Your task to perform on an android device: Open battery settings Image 0: 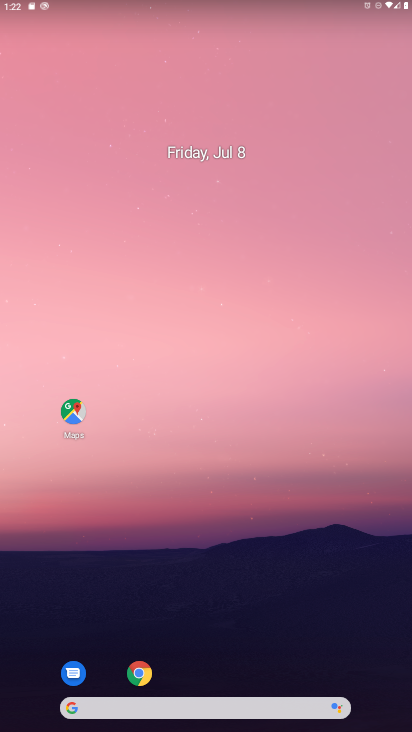
Step 0: drag from (397, 721) to (345, 144)
Your task to perform on an android device: Open battery settings Image 1: 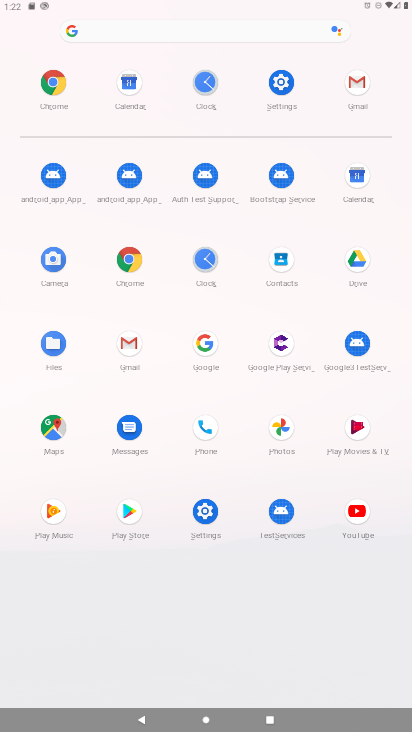
Step 1: click (287, 82)
Your task to perform on an android device: Open battery settings Image 2: 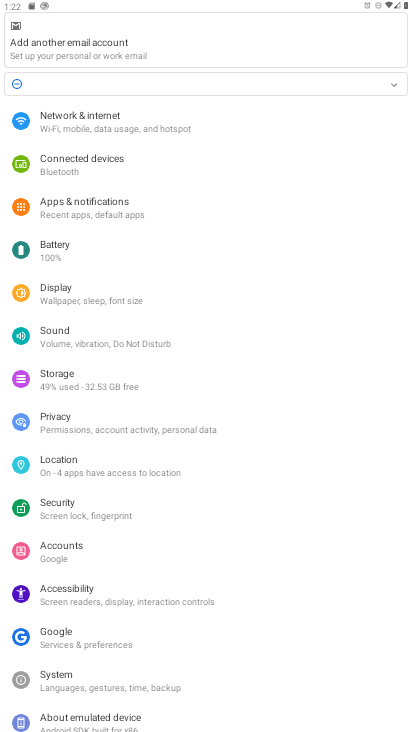
Step 2: click (61, 247)
Your task to perform on an android device: Open battery settings Image 3: 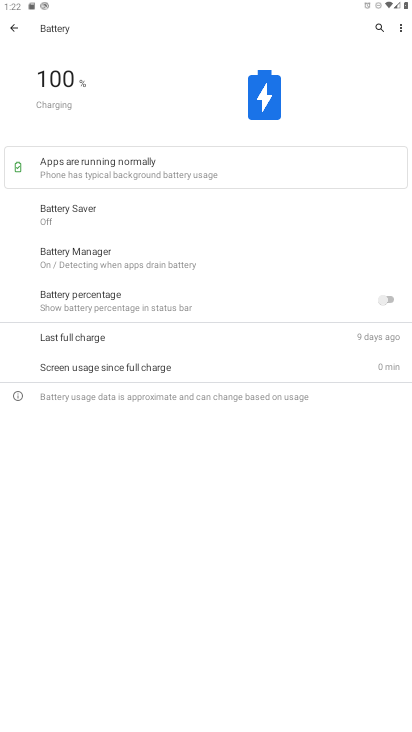
Step 3: click (397, 23)
Your task to perform on an android device: Open battery settings Image 4: 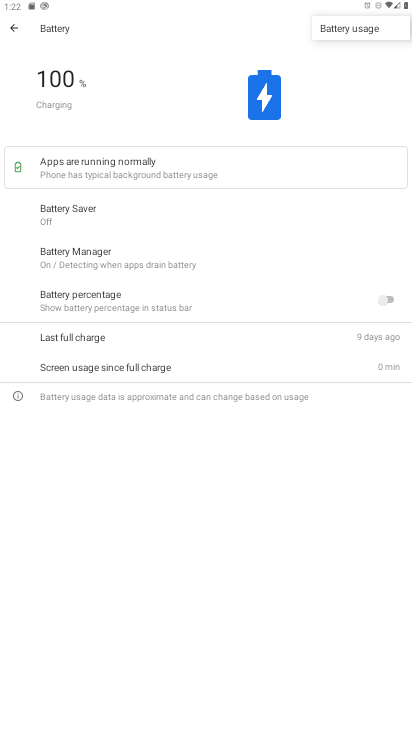
Step 4: click (146, 469)
Your task to perform on an android device: Open battery settings Image 5: 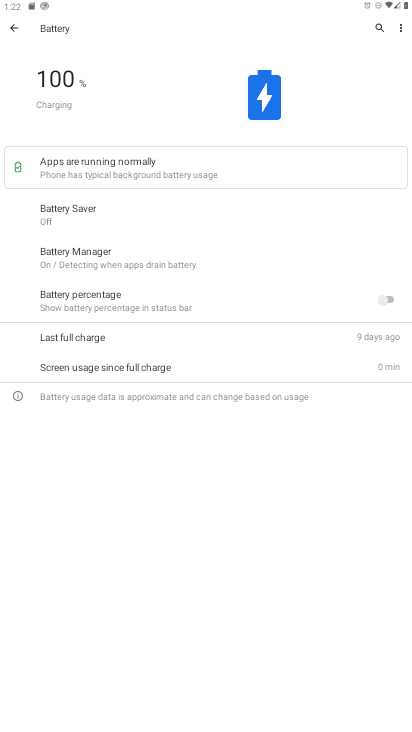
Step 5: task complete